Your task to perform on an android device: Open maps Image 0: 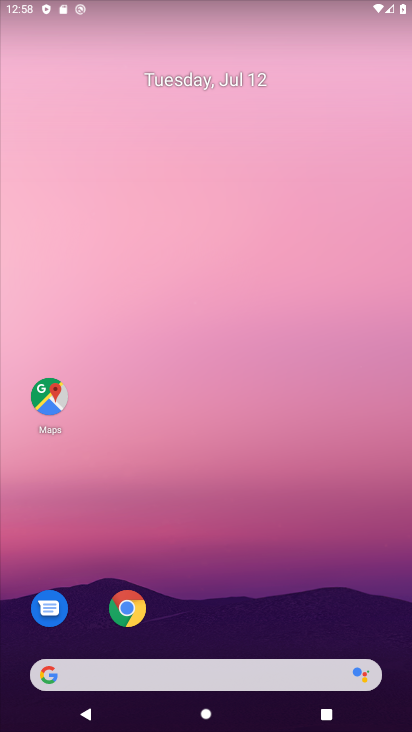
Step 0: click (47, 398)
Your task to perform on an android device: Open maps Image 1: 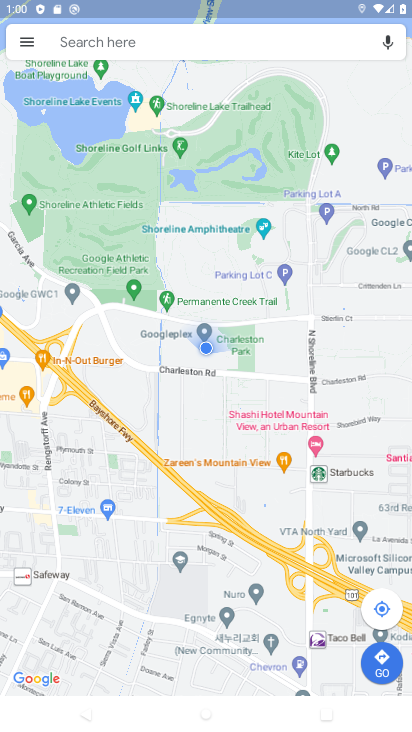
Step 1: task complete